Your task to perform on an android device: Go to display settings Image 0: 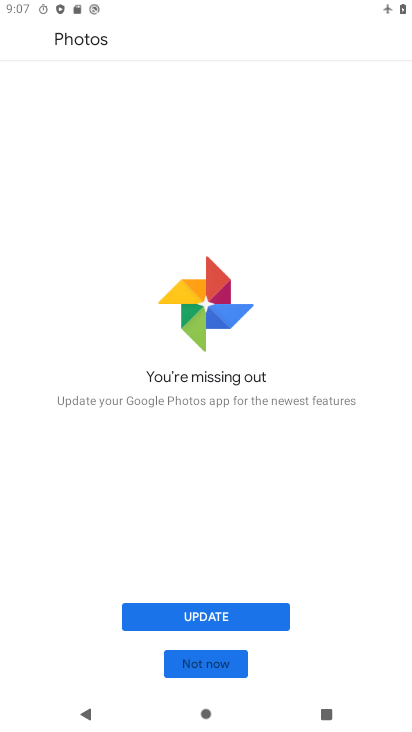
Step 0: press home button
Your task to perform on an android device: Go to display settings Image 1: 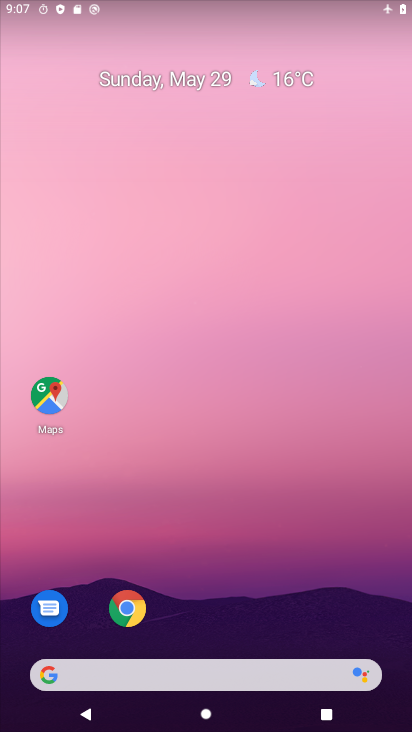
Step 1: drag from (185, 600) to (196, 2)
Your task to perform on an android device: Go to display settings Image 2: 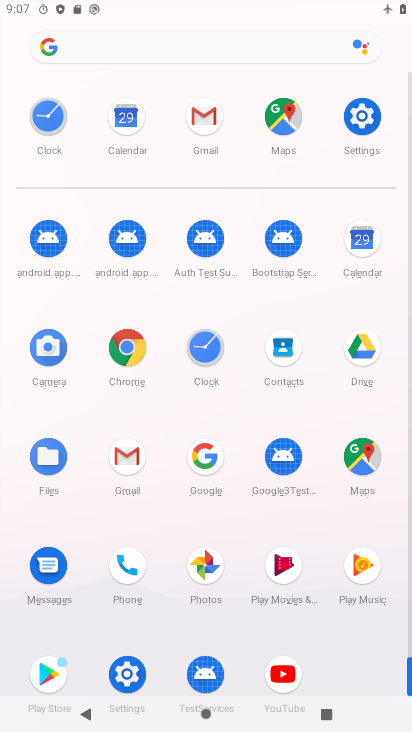
Step 2: click (351, 131)
Your task to perform on an android device: Go to display settings Image 3: 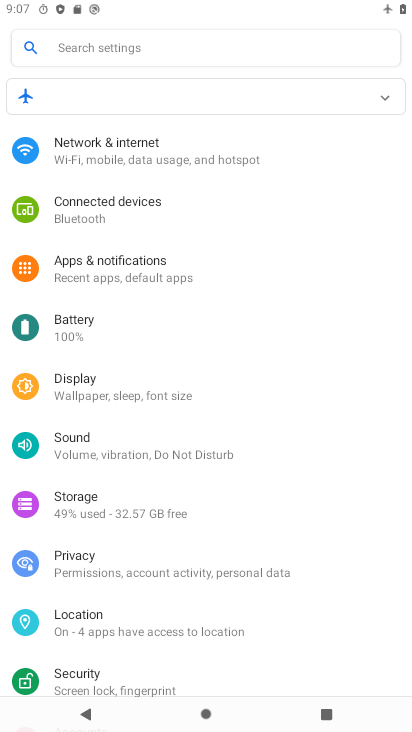
Step 3: click (76, 401)
Your task to perform on an android device: Go to display settings Image 4: 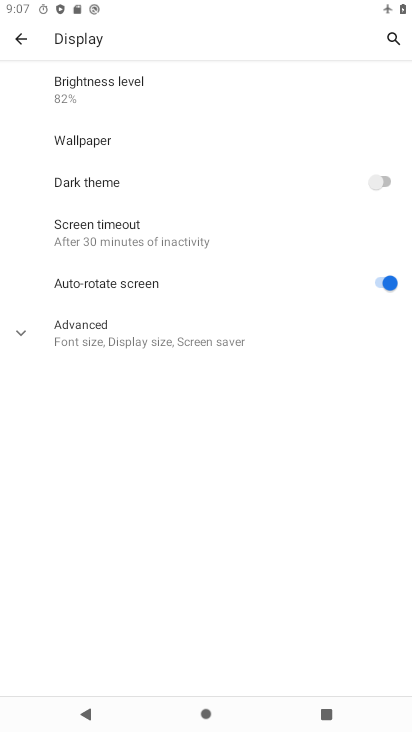
Step 4: task complete